Your task to perform on an android device: What's the speed of light? Image 0: 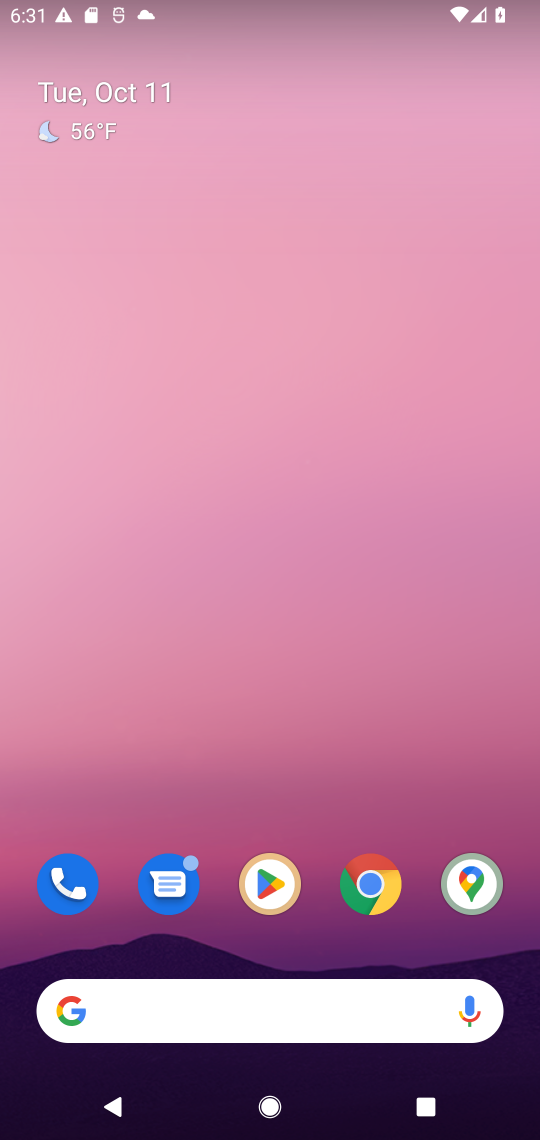
Step 0: drag from (317, 896) to (371, 216)
Your task to perform on an android device: What's the speed of light? Image 1: 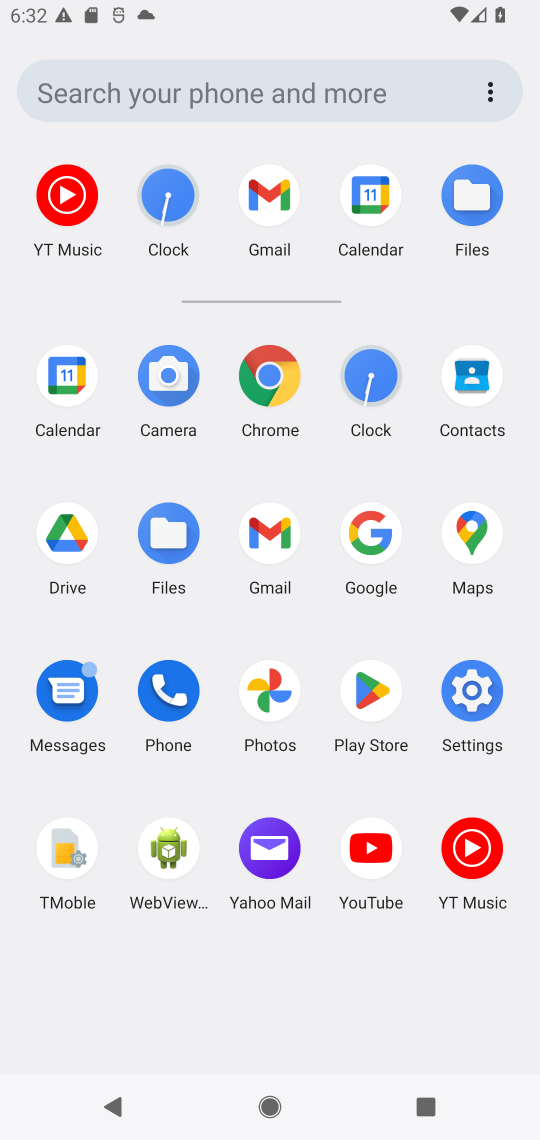
Step 1: click (375, 528)
Your task to perform on an android device: What's the speed of light? Image 2: 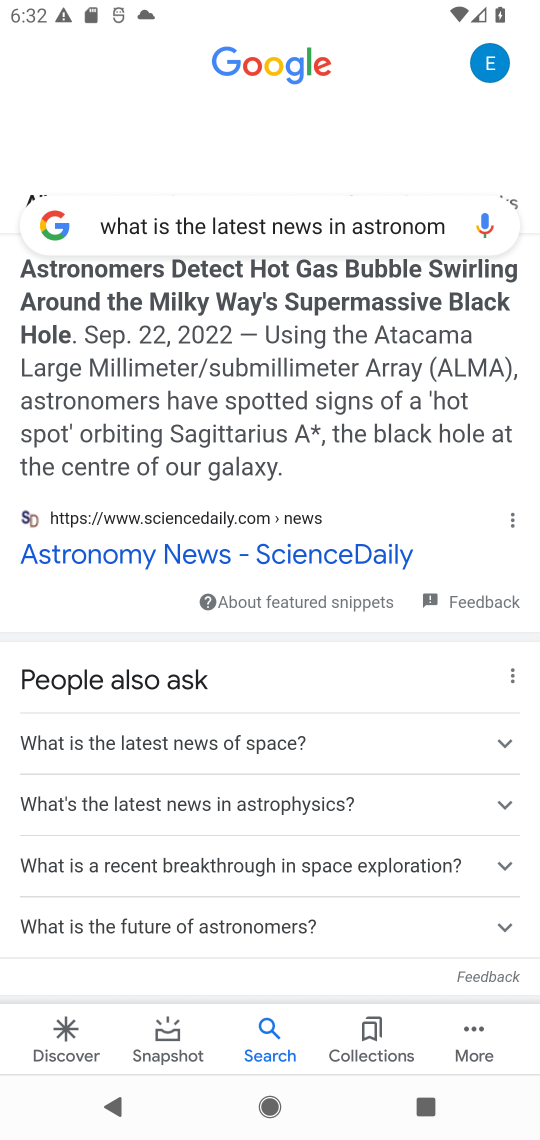
Step 2: click (363, 212)
Your task to perform on an android device: What's the speed of light? Image 3: 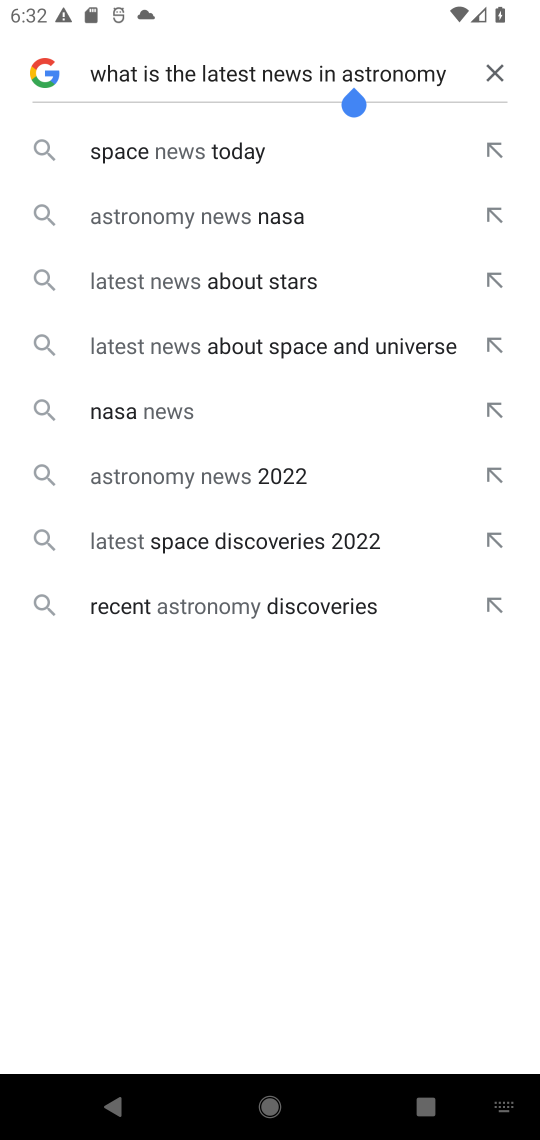
Step 3: click (496, 71)
Your task to perform on an android device: What's the speed of light? Image 4: 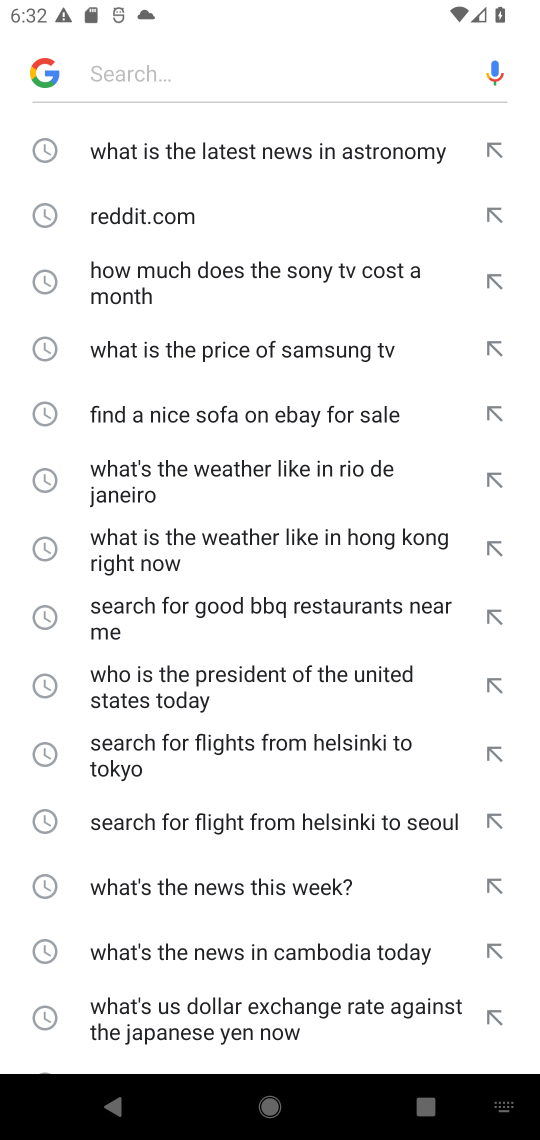
Step 4: type "What's the speed of light?"
Your task to perform on an android device: What's the speed of light? Image 5: 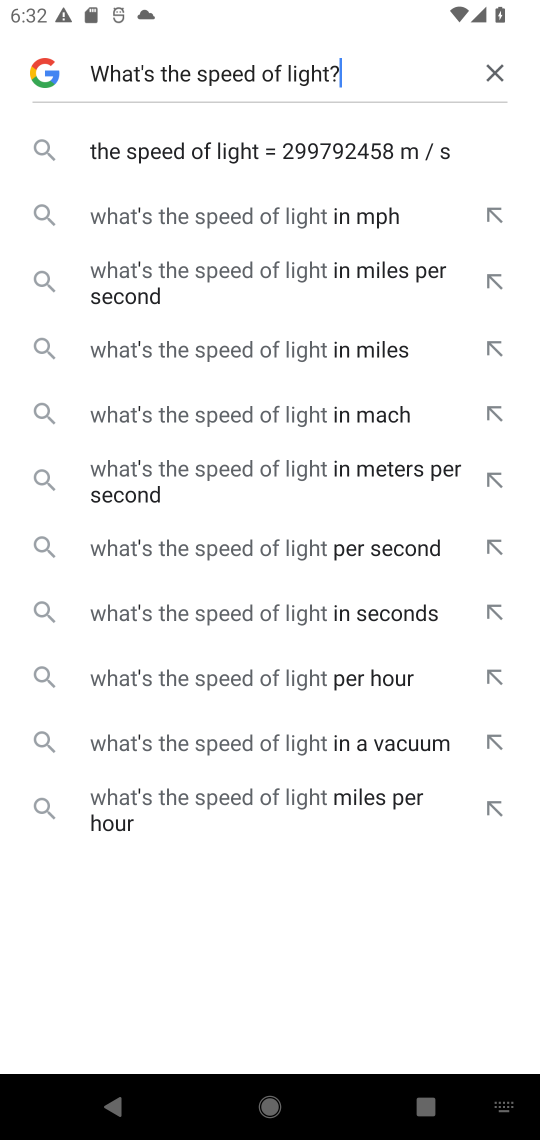
Step 5: click (295, 140)
Your task to perform on an android device: What's the speed of light? Image 6: 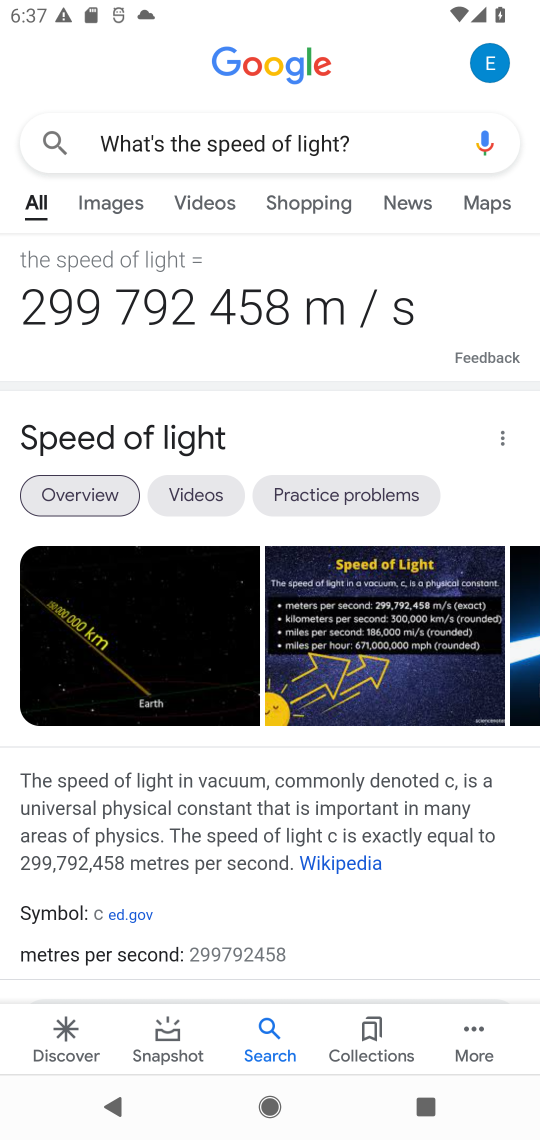
Step 6: task complete